Your task to perform on an android device: Do I have any events today? Image 0: 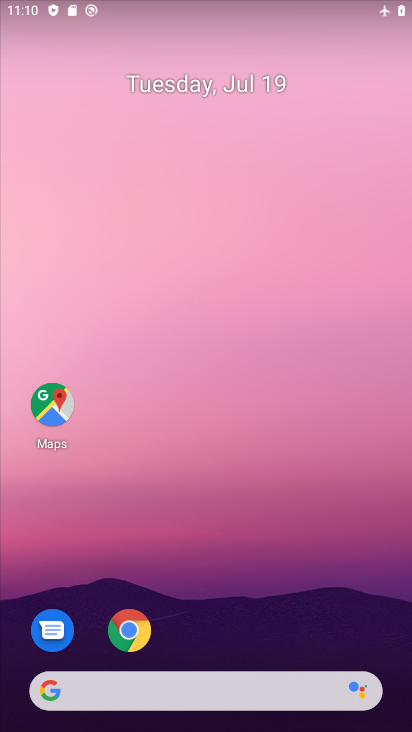
Step 0: drag from (202, 669) to (148, 206)
Your task to perform on an android device: Do I have any events today? Image 1: 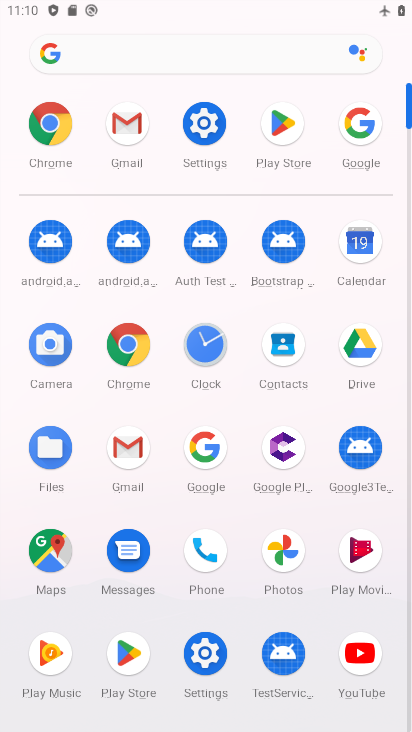
Step 1: click (358, 244)
Your task to perform on an android device: Do I have any events today? Image 2: 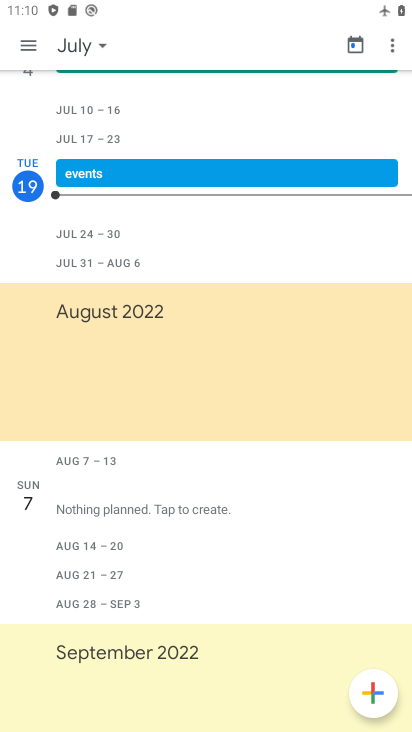
Step 2: task complete